Your task to perform on an android device: show emergency info Image 0: 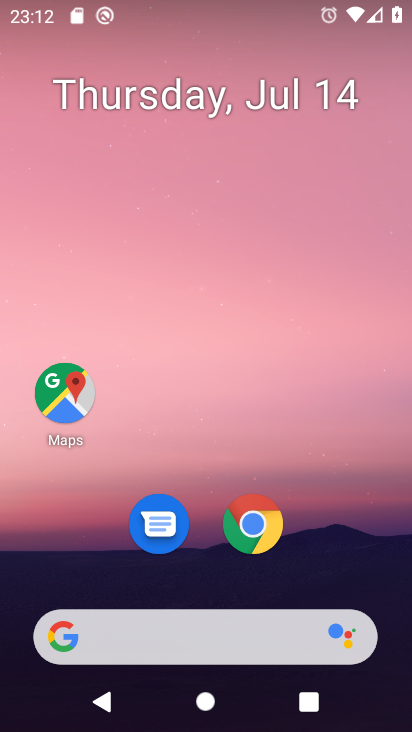
Step 0: drag from (308, 518) to (314, 47)
Your task to perform on an android device: show emergency info Image 1: 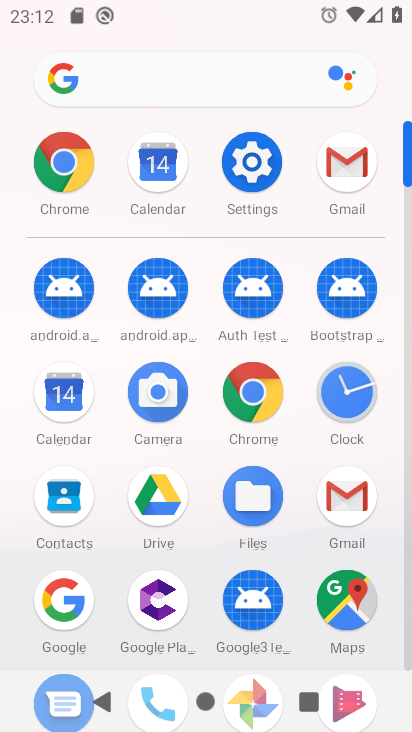
Step 1: click (261, 161)
Your task to perform on an android device: show emergency info Image 2: 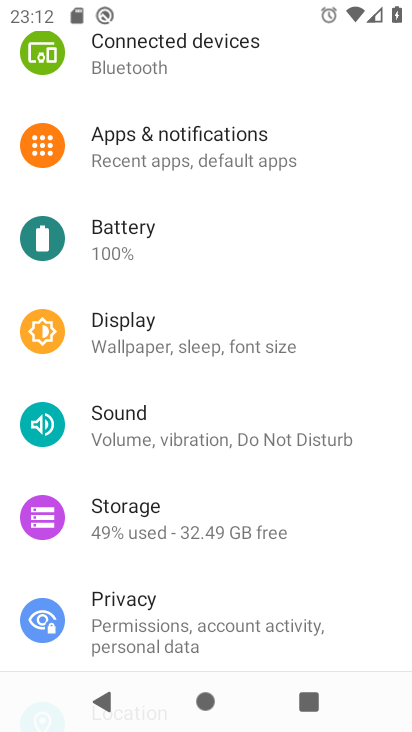
Step 2: drag from (254, 473) to (222, 5)
Your task to perform on an android device: show emergency info Image 3: 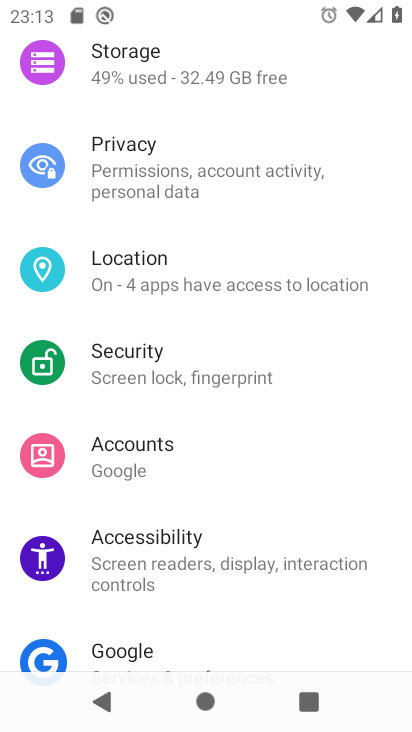
Step 3: drag from (202, 444) to (232, 152)
Your task to perform on an android device: show emergency info Image 4: 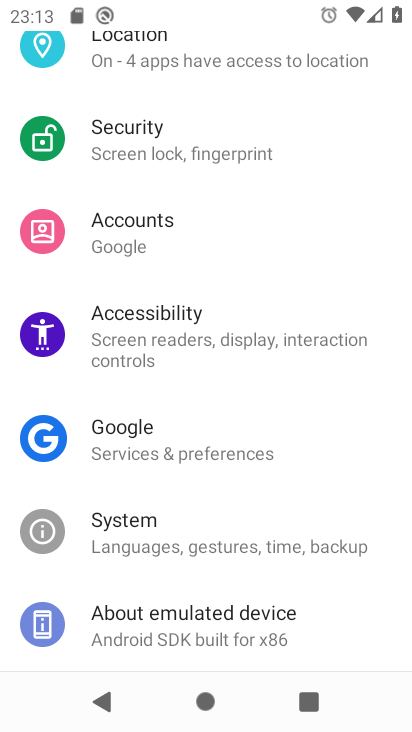
Step 4: drag from (176, 493) to (225, 309)
Your task to perform on an android device: show emergency info Image 5: 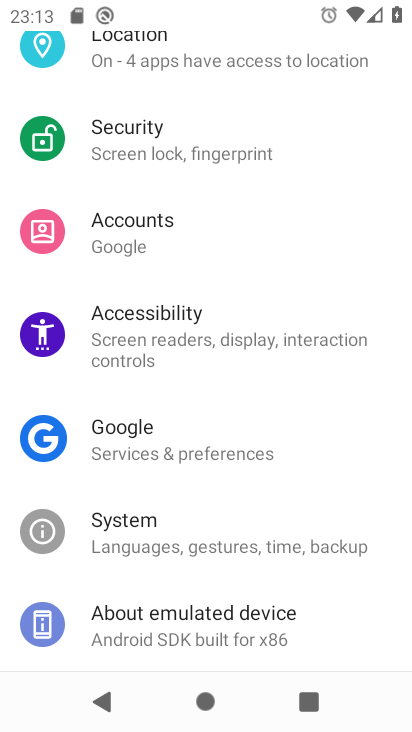
Step 5: click (200, 613)
Your task to perform on an android device: show emergency info Image 6: 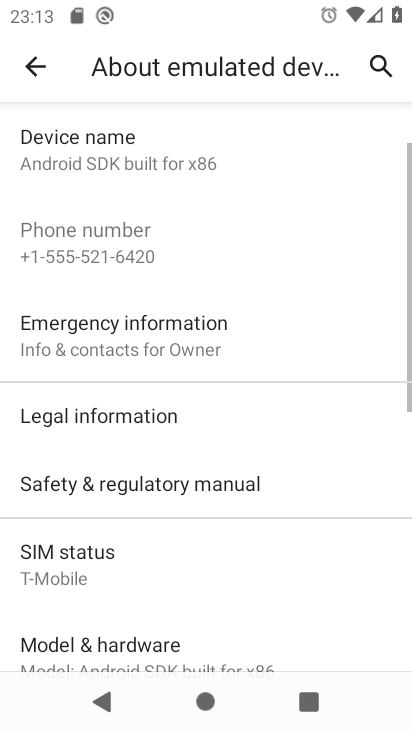
Step 6: click (191, 337)
Your task to perform on an android device: show emergency info Image 7: 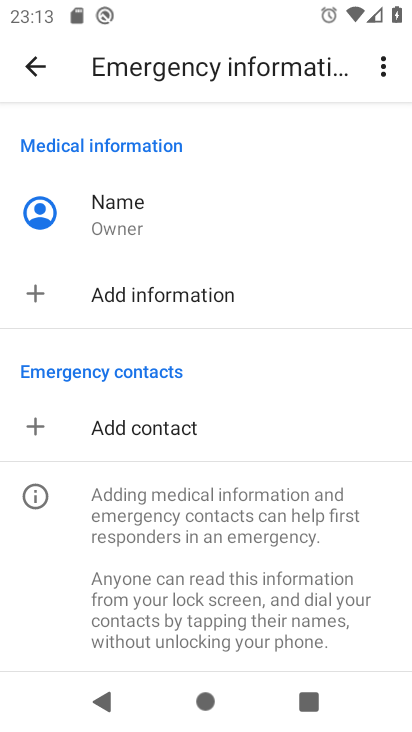
Step 7: task complete